Your task to perform on an android device: Go to calendar. Show me events next week Image 0: 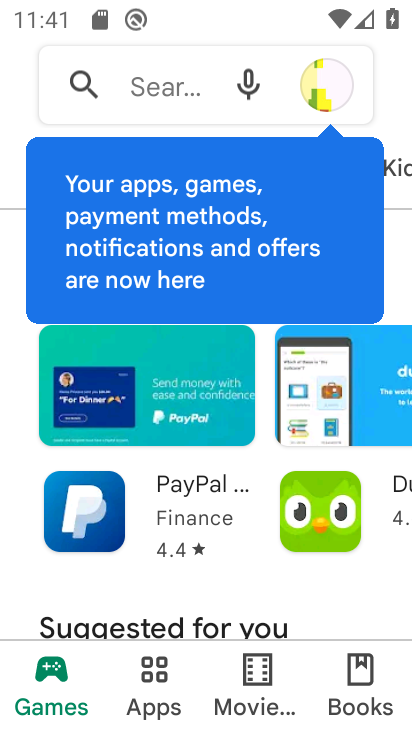
Step 0: press home button
Your task to perform on an android device: Go to calendar. Show me events next week Image 1: 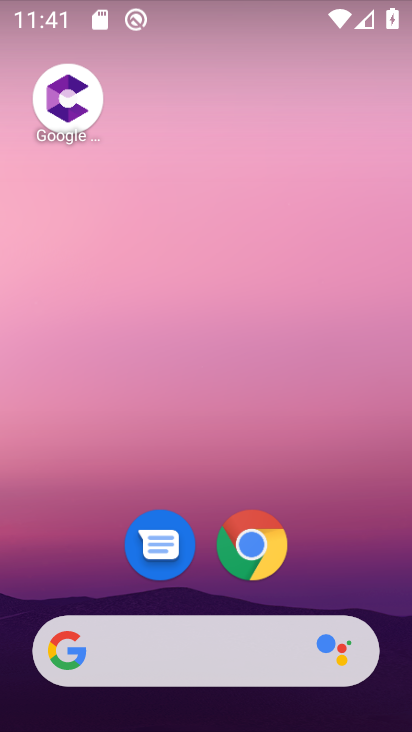
Step 1: drag from (351, 562) to (319, 74)
Your task to perform on an android device: Go to calendar. Show me events next week Image 2: 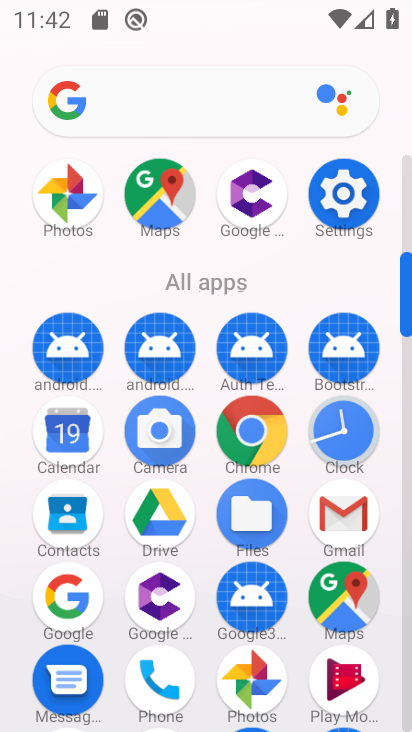
Step 2: click (67, 443)
Your task to perform on an android device: Go to calendar. Show me events next week Image 3: 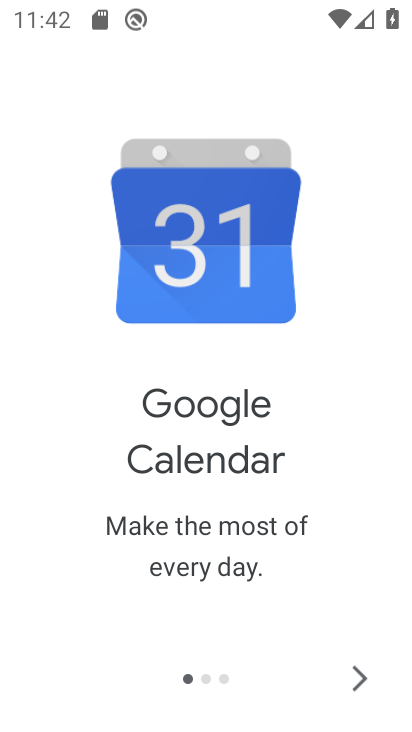
Step 3: click (360, 674)
Your task to perform on an android device: Go to calendar. Show me events next week Image 4: 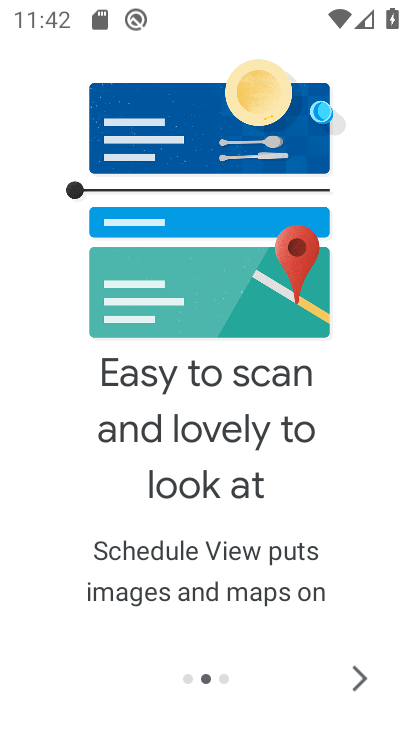
Step 4: click (361, 673)
Your task to perform on an android device: Go to calendar. Show me events next week Image 5: 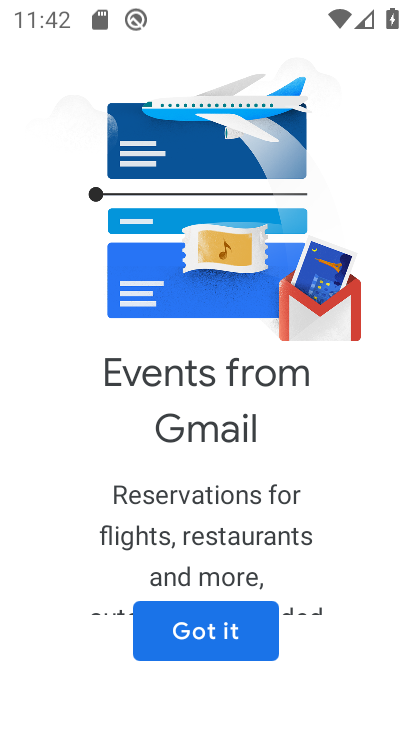
Step 5: click (229, 653)
Your task to perform on an android device: Go to calendar. Show me events next week Image 6: 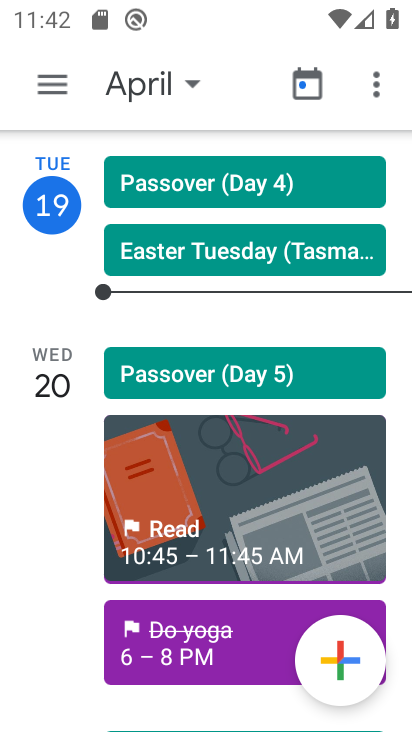
Step 6: click (186, 85)
Your task to perform on an android device: Go to calendar. Show me events next week Image 7: 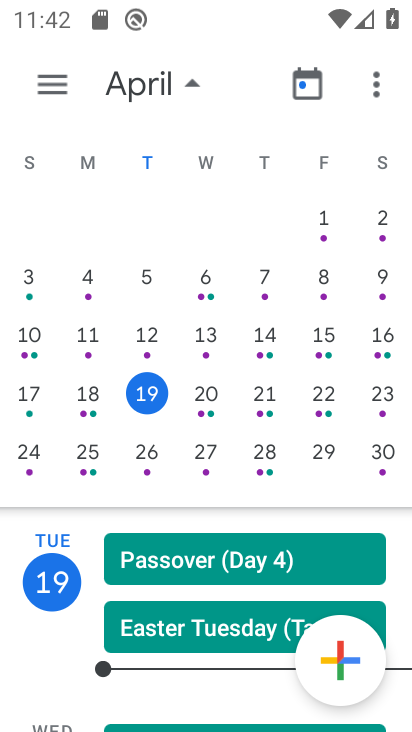
Step 7: click (148, 461)
Your task to perform on an android device: Go to calendar. Show me events next week Image 8: 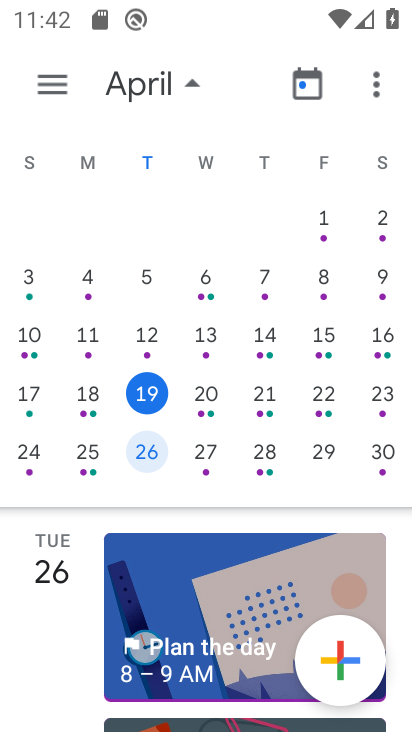
Step 8: task complete